Your task to perform on an android device: Open Yahoo.com Image 0: 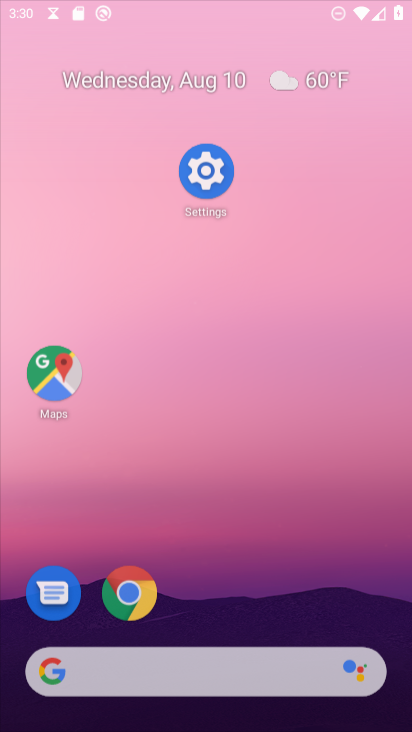
Step 0: press home button
Your task to perform on an android device: Open Yahoo.com Image 1: 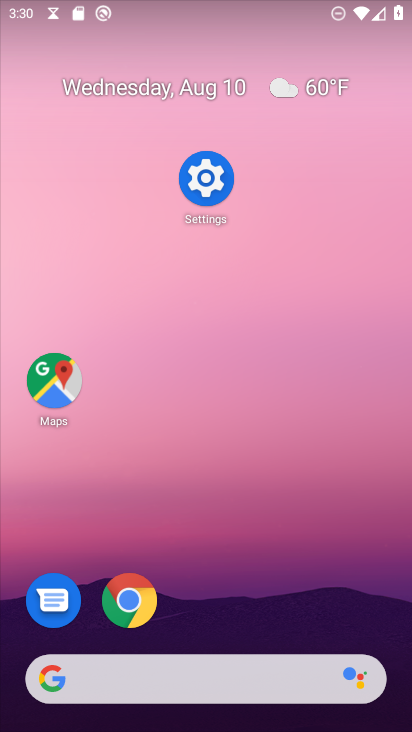
Step 1: click (45, 687)
Your task to perform on an android device: Open Yahoo.com Image 2: 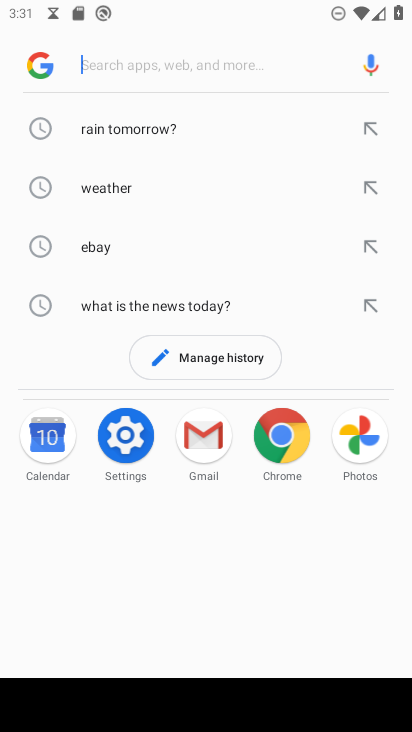
Step 2: type "Yahoo.com"
Your task to perform on an android device: Open Yahoo.com Image 3: 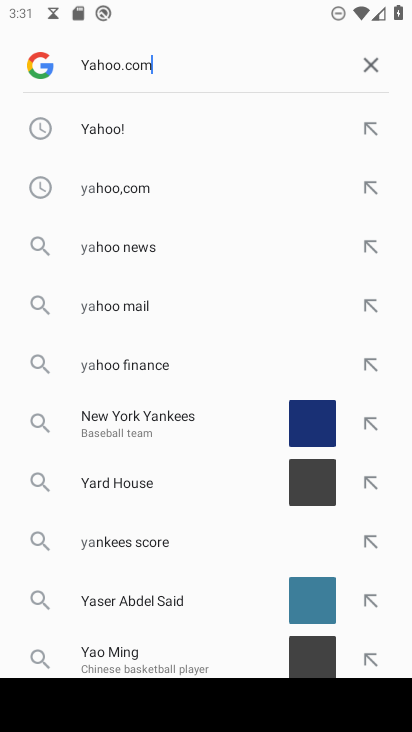
Step 3: press enter
Your task to perform on an android device: Open Yahoo.com Image 4: 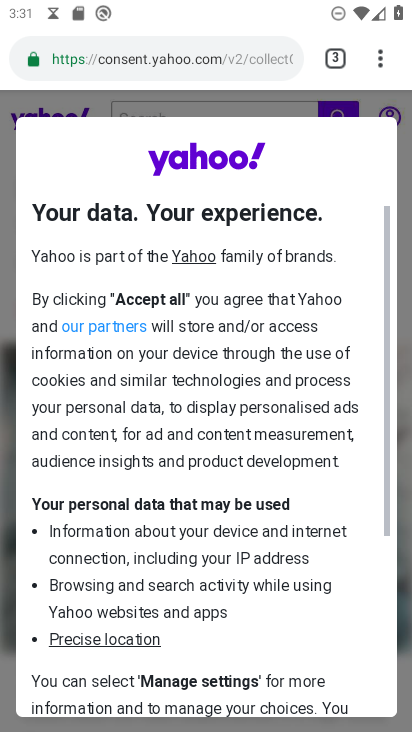
Step 4: drag from (346, 641) to (245, 27)
Your task to perform on an android device: Open Yahoo.com Image 5: 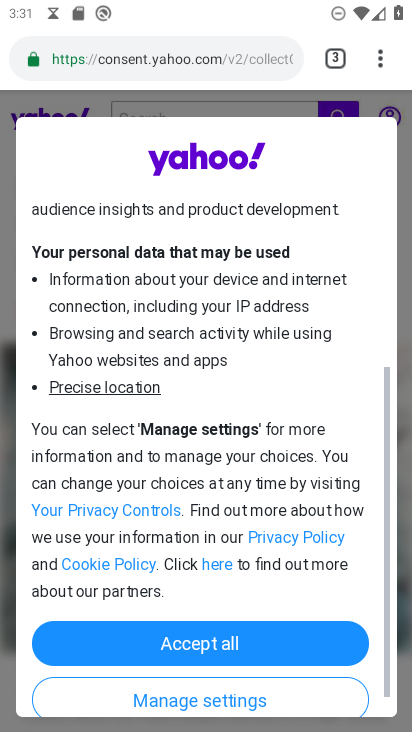
Step 5: click (135, 627)
Your task to perform on an android device: Open Yahoo.com Image 6: 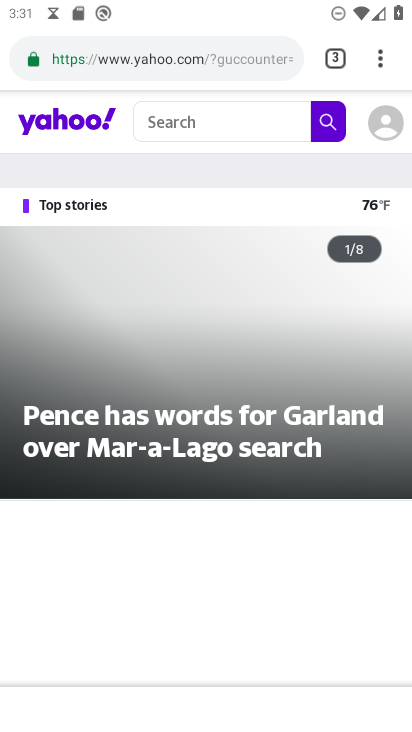
Step 6: task complete